Your task to perform on an android device: toggle improve location accuracy Image 0: 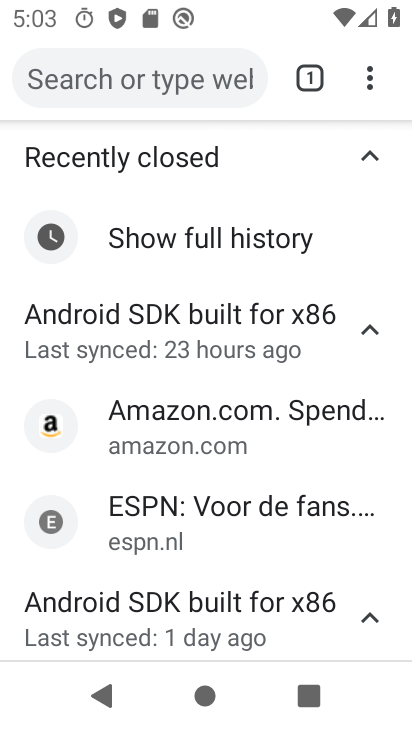
Step 0: press home button
Your task to perform on an android device: toggle improve location accuracy Image 1: 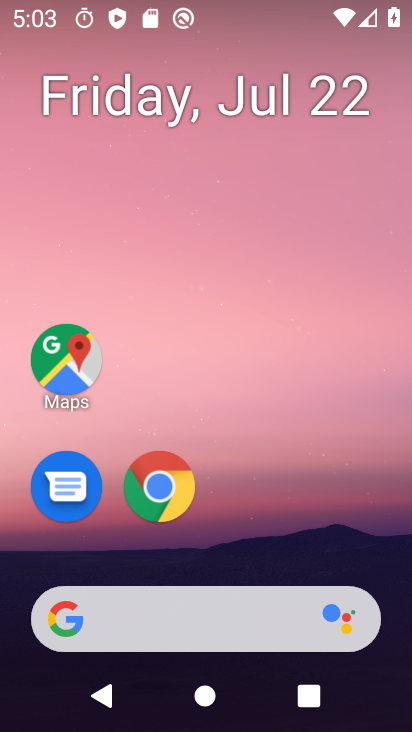
Step 1: drag from (282, 569) to (173, 91)
Your task to perform on an android device: toggle improve location accuracy Image 2: 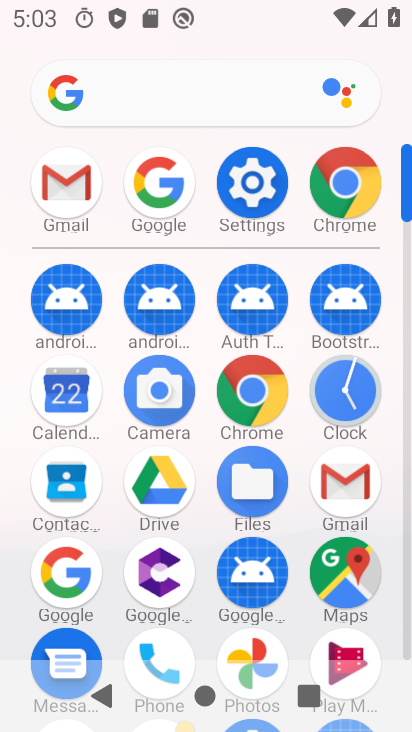
Step 2: click (250, 165)
Your task to perform on an android device: toggle improve location accuracy Image 3: 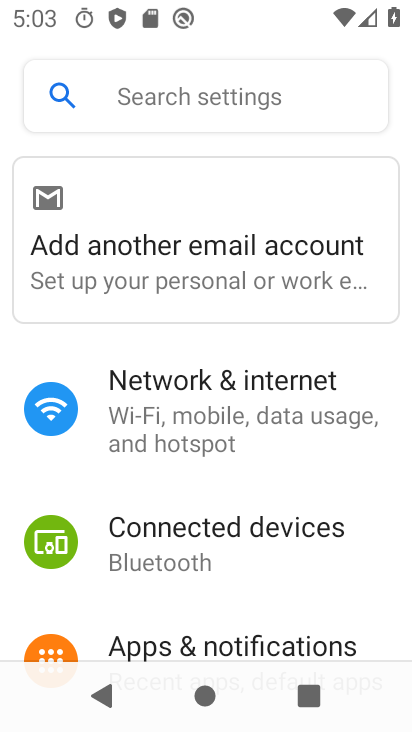
Step 3: drag from (267, 536) to (224, 170)
Your task to perform on an android device: toggle improve location accuracy Image 4: 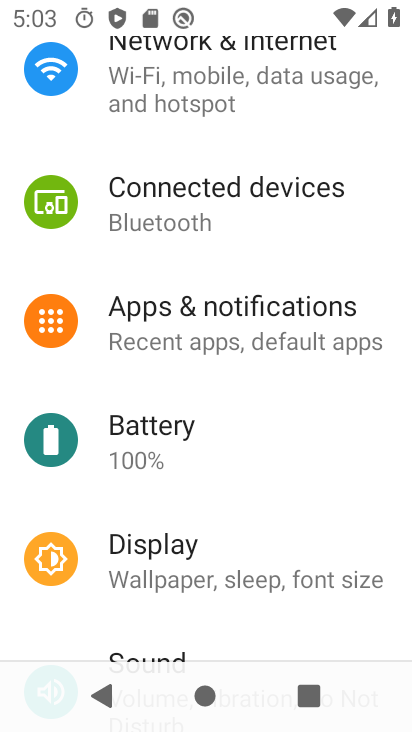
Step 4: drag from (273, 611) to (226, 223)
Your task to perform on an android device: toggle improve location accuracy Image 5: 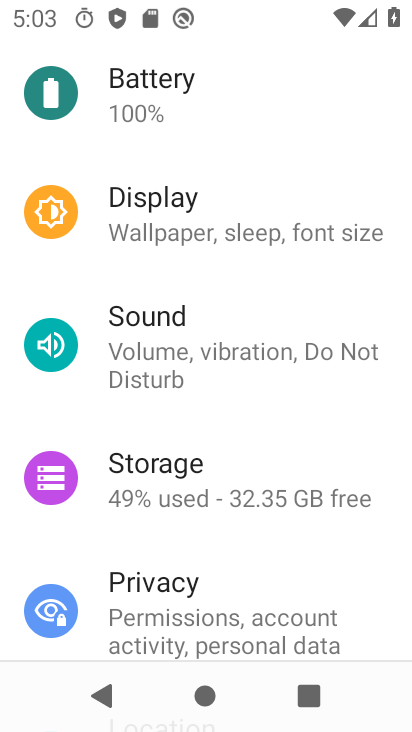
Step 5: drag from (270, 571) to (247, 205)
Your task to perform on an android device: toggle improve location accuracy Image 6: 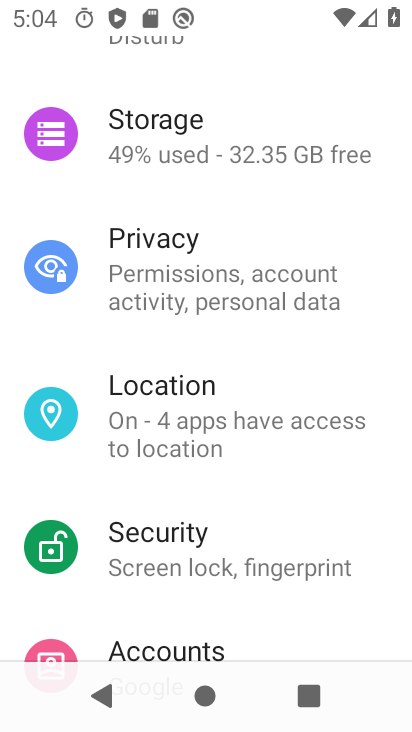
Step 6: click (242, 437)
Your task to perform on an android device: toggle improve location accuracy Image 7: 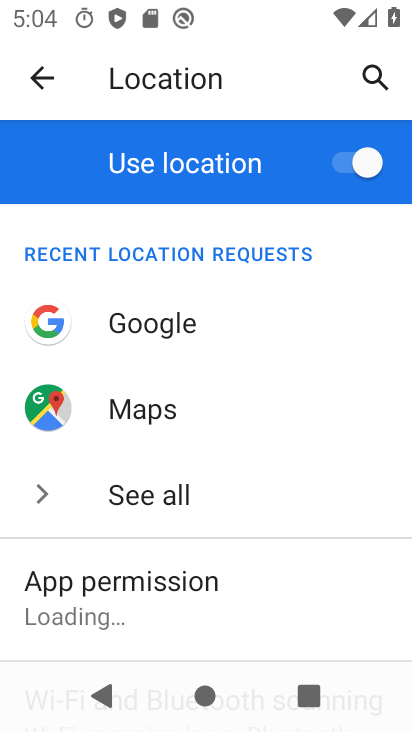
Step 7: drag from (250, 601) to (184, 231)
Your task to perform on an android device: toggle improve location accuracy Image 8: 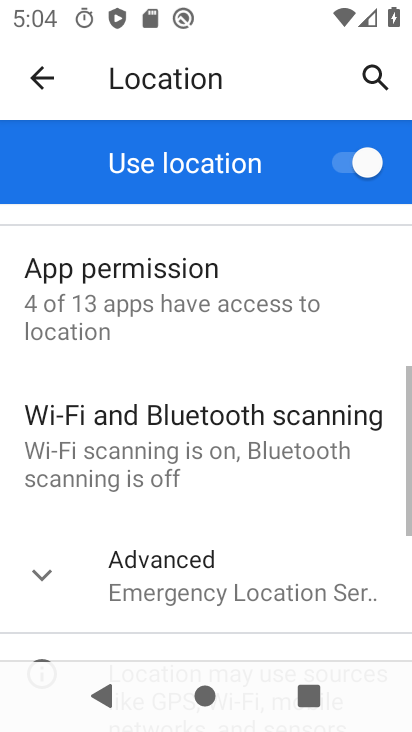
Step 8: click (277, 572)
Your task to perform on an android device: toggle improve location accuracy Image 9: 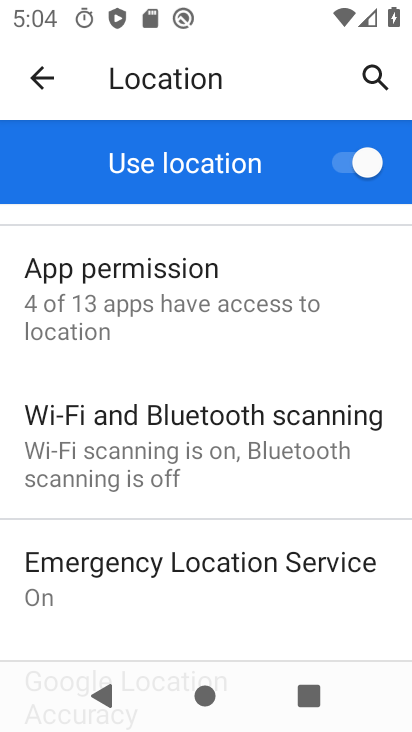
Step 9: drag from (289, 617) to (235, 238)
Your task to perform on an android device: toggle improve location accuracy Image 10: 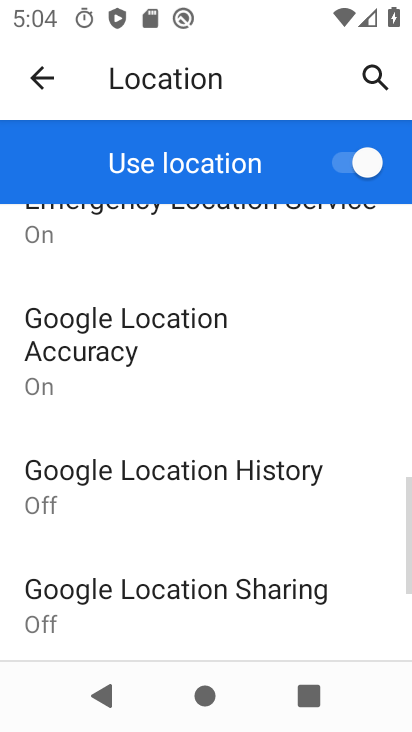
Step 10: drag from (283, 606) to (248, 308)
Your task to perform on an android device: toggle improve location accuracy Image 11: 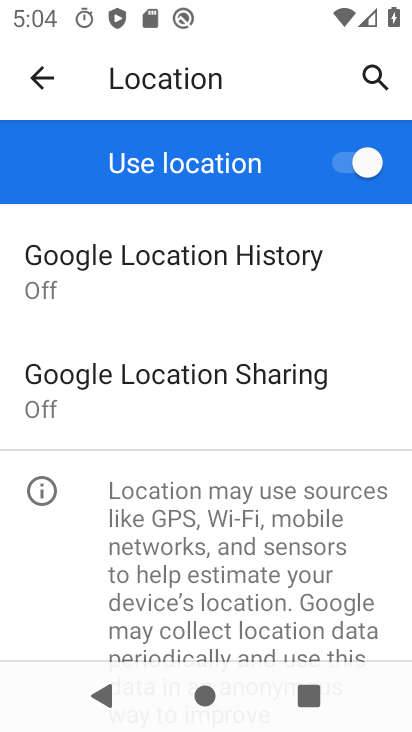
Step 11: drag from (250, 317) to (279, 592)
Your task to perform on an android device: toggle improve location accuracy Image 12: 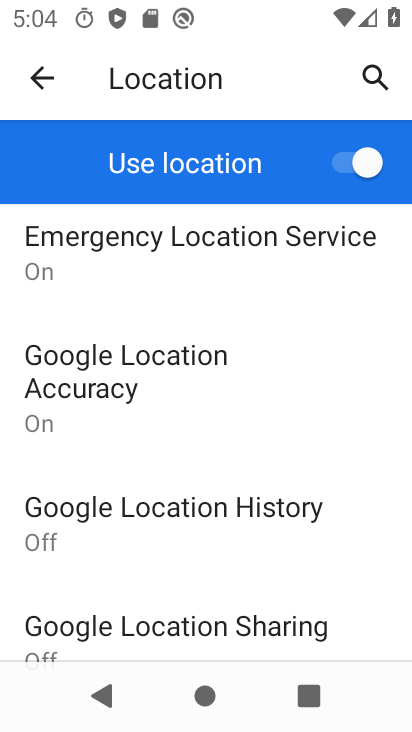
Step 12: click (214, 382)
Your task to perform on an android device: toggle improve location accuracy Image 13: 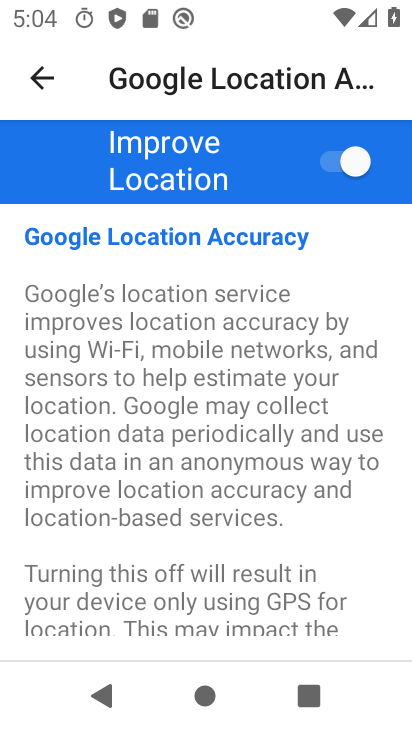
Step 13: click (358, 154)
Your task to perform on an android device: toggle improve location accuracy Image 14: 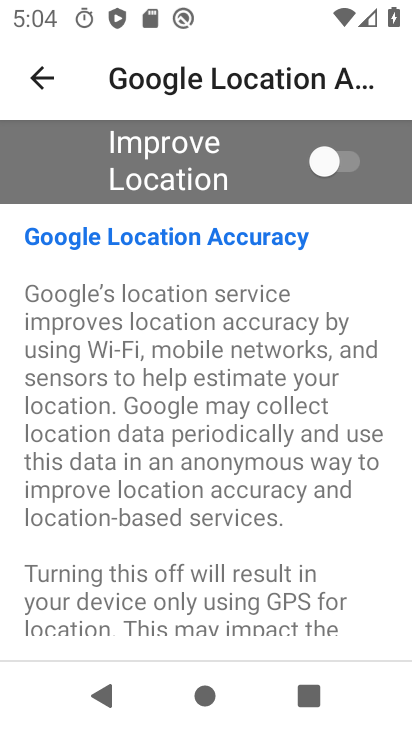
Step 14: task complete